Your task to perform on an android device: turn on translation in the chrome app Image 0: 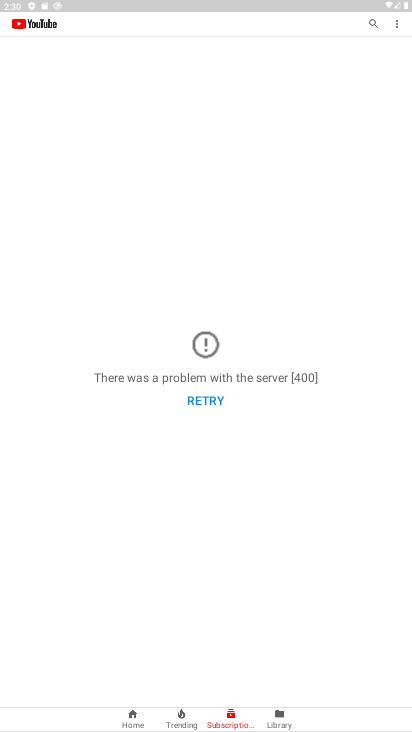
Step 0: press home button
Your task to perform on an android device: turn on translation in the chrome app Image 1: 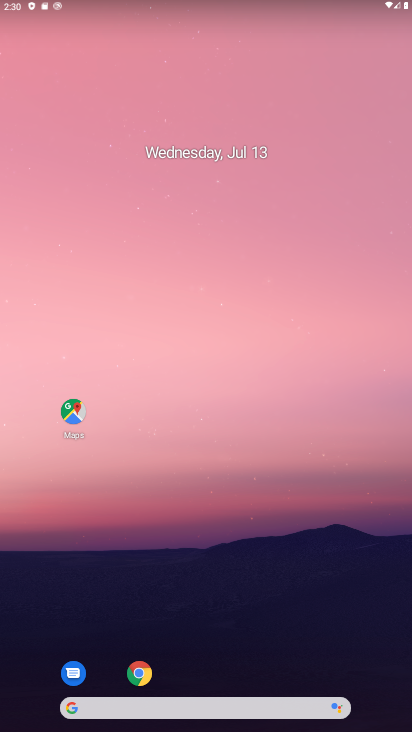
Step 1: click (140, 674)
Your task to perform on an android device: turn on translation in the chrome app Image 2: 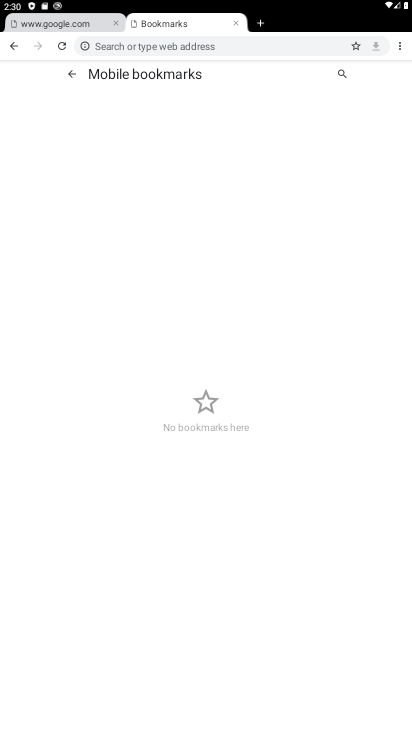
Step 2: click (400, 47)
Your task to perform on an android device: turn on translation in the chrome app Image 3: 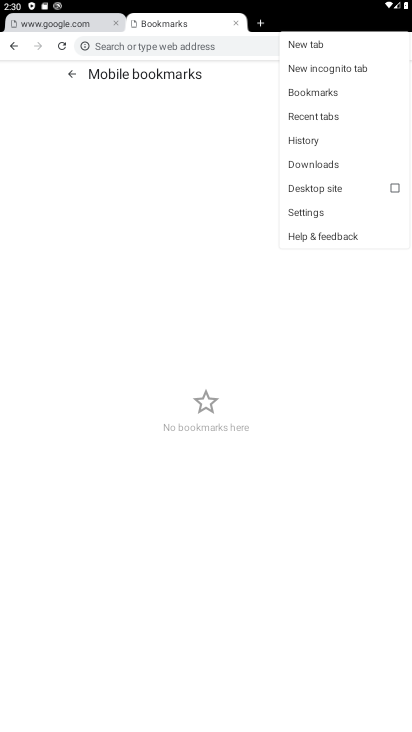
Step 3: click (308, 211)
Your task to perform on an android device: turn on translation in the chrome app Image 4: 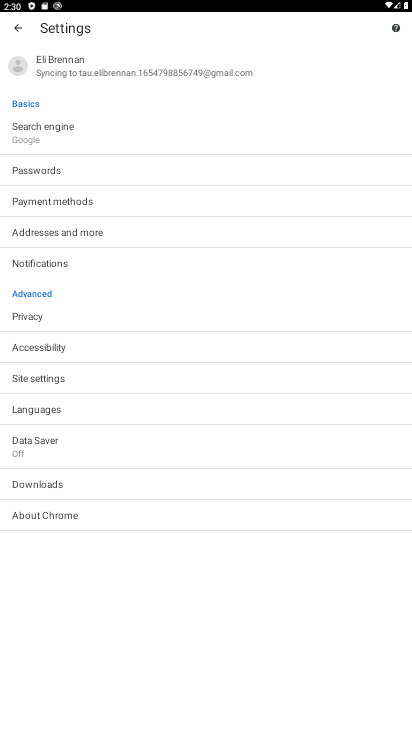
Step 4: click (49, 407)
Your task to perform on an android device: turn on translation in the chrome app Image 5: 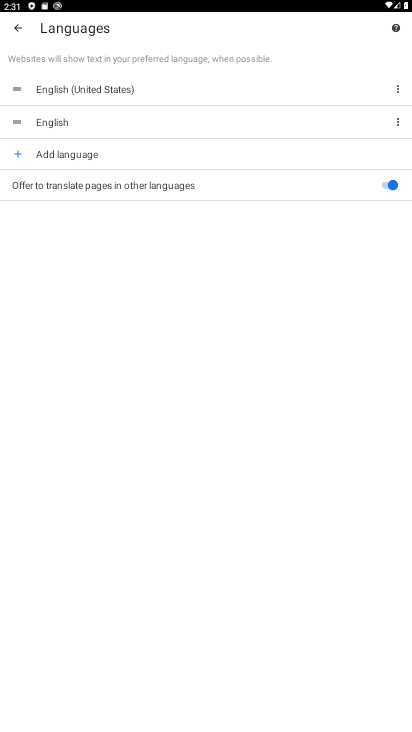
Step 5: task complete